Your task to perform on an android device: Open Google Maps and go to "Timeline" Image 0: 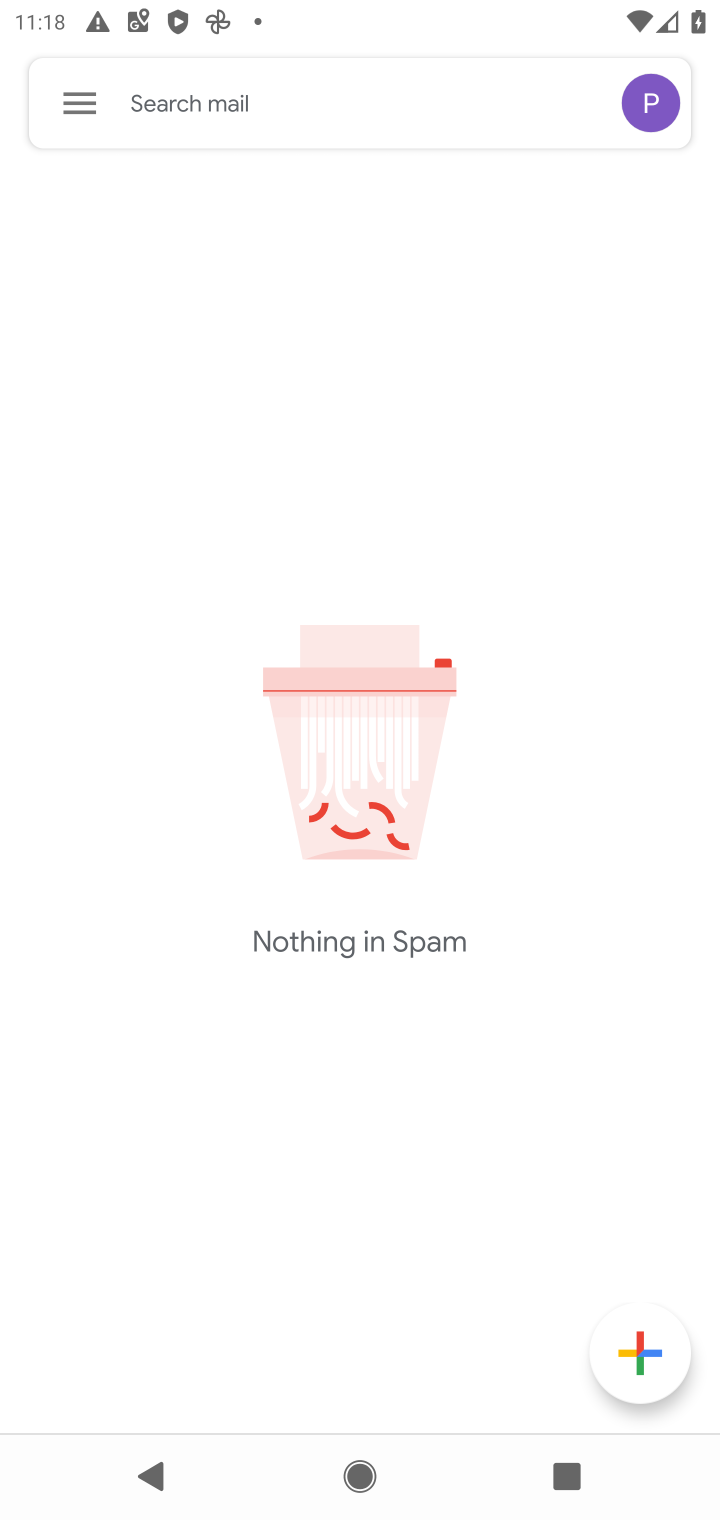
Step 0: press home button
Your task to perform on an android device: Open Google Maps and go to "Timeline" Image 1: 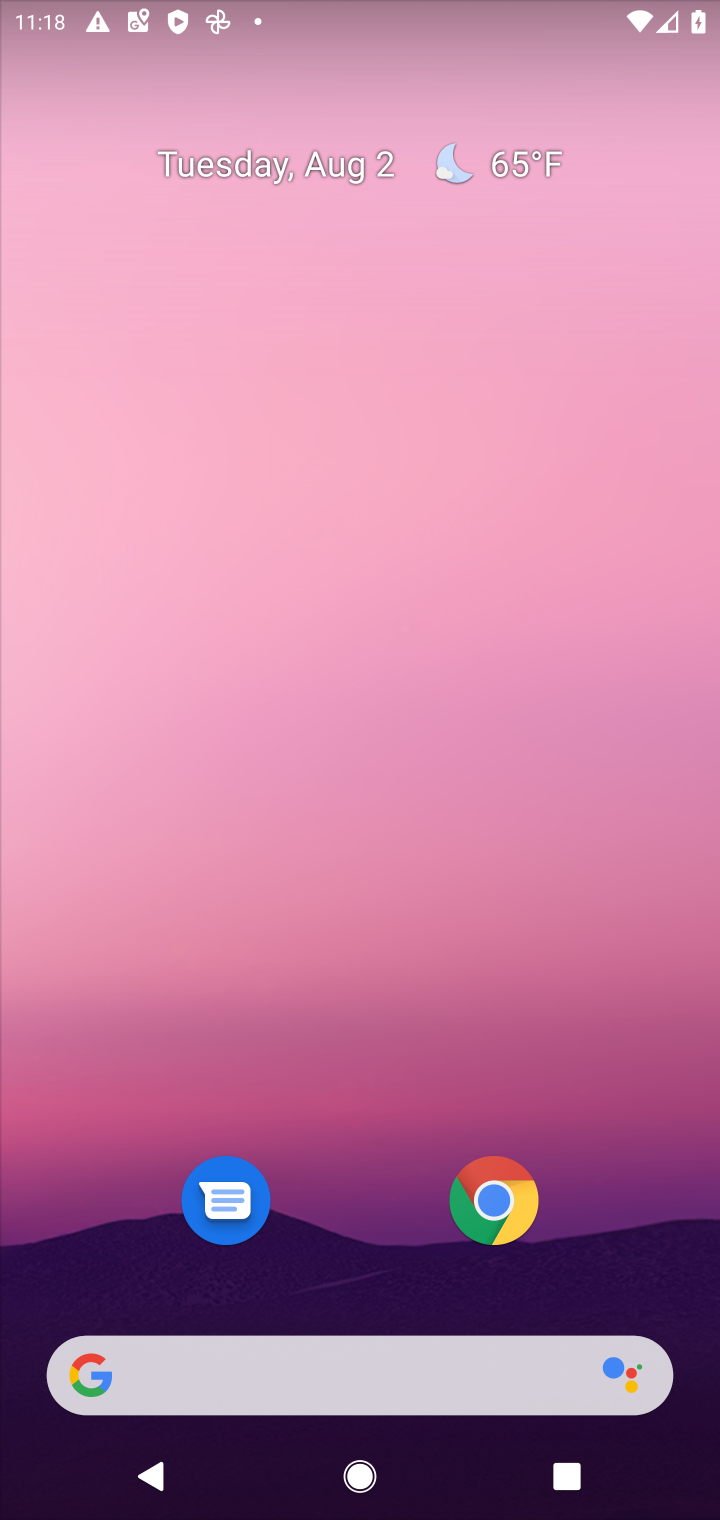
Step 1: drag from (675, 1264) to (564, 193)
Your task to perform on an android device: Open Google Maps and go to "Timeline" Image 2: 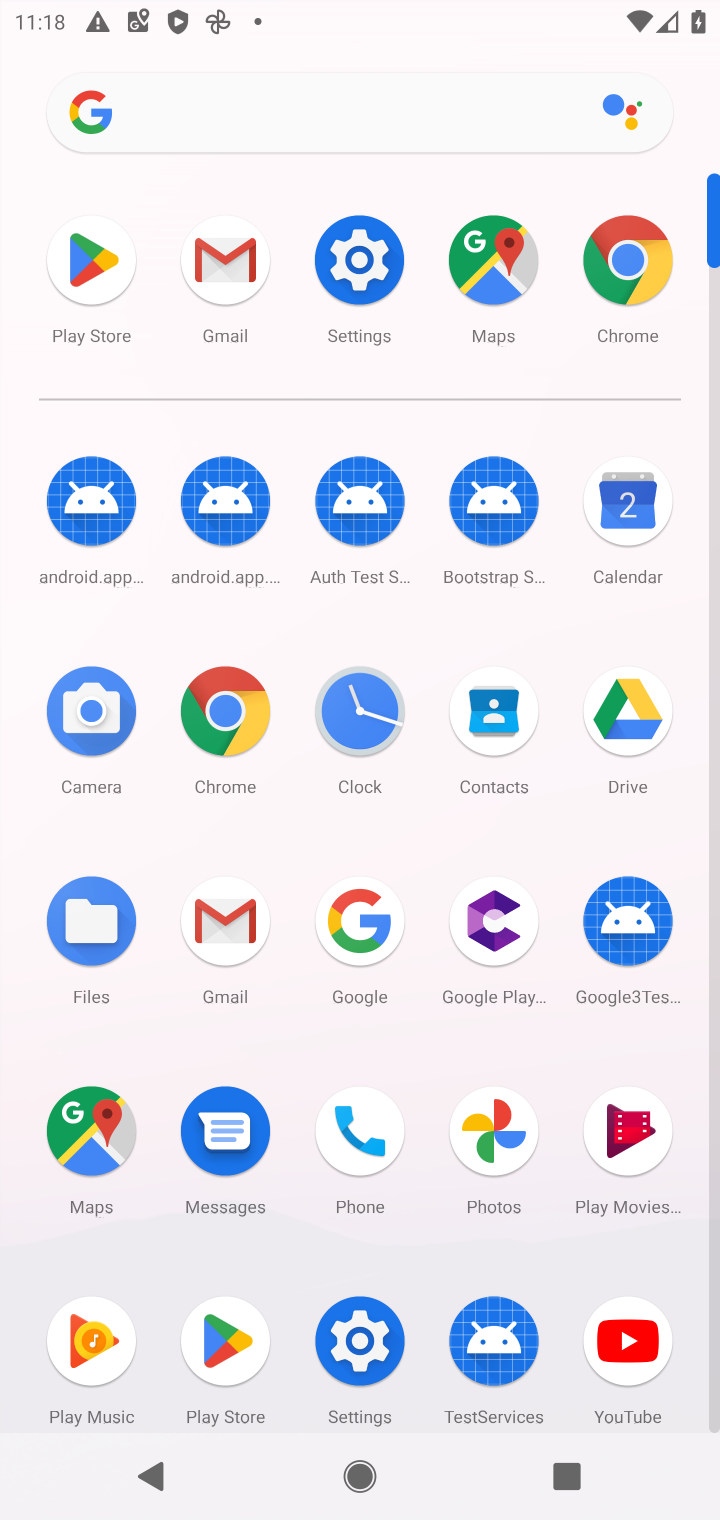
Step 2: click (94, 1118)
Your task to perform on an android device: Open Google Maps and go to "Timeline" Image 3: 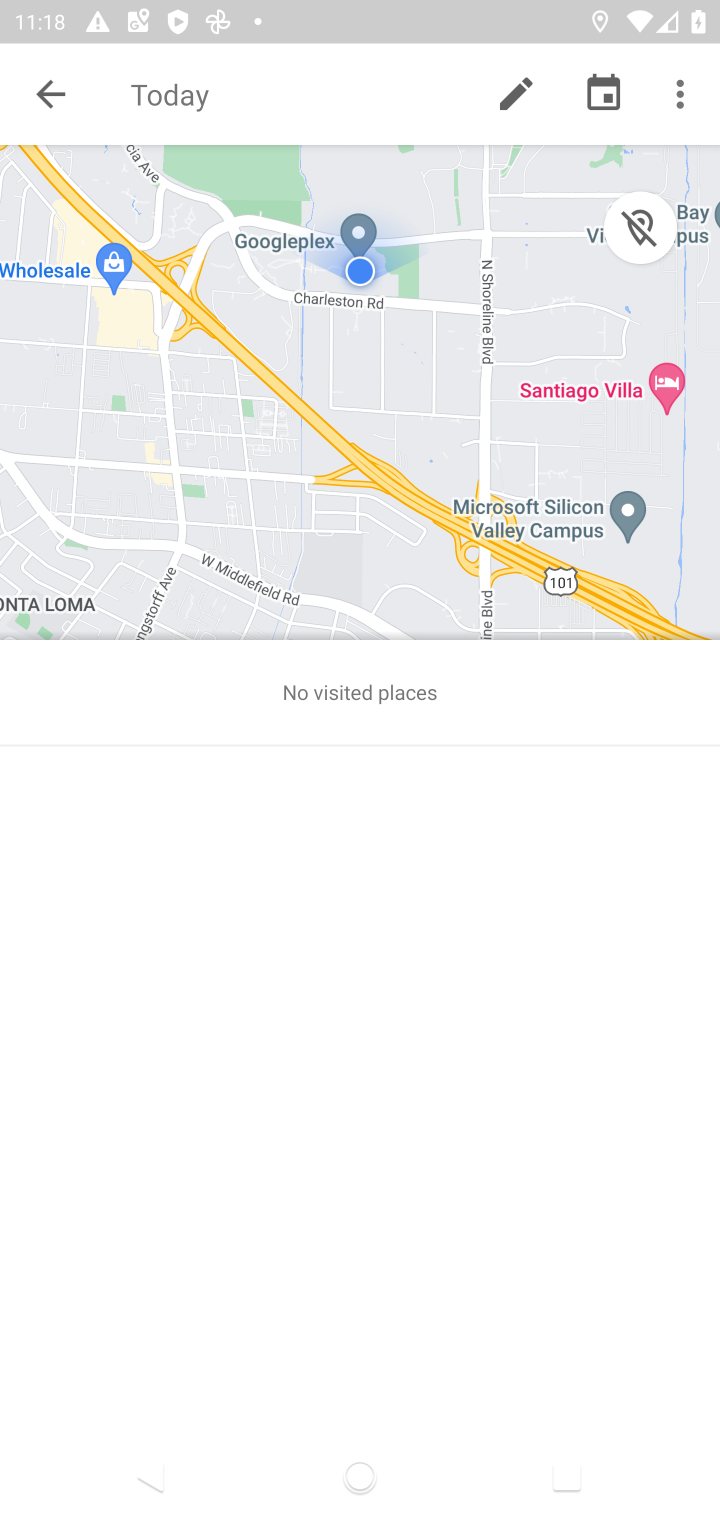
Step 3: press back button
Your task to perform on an android device: Open Google Maps and go to "Timeline" Image 4: 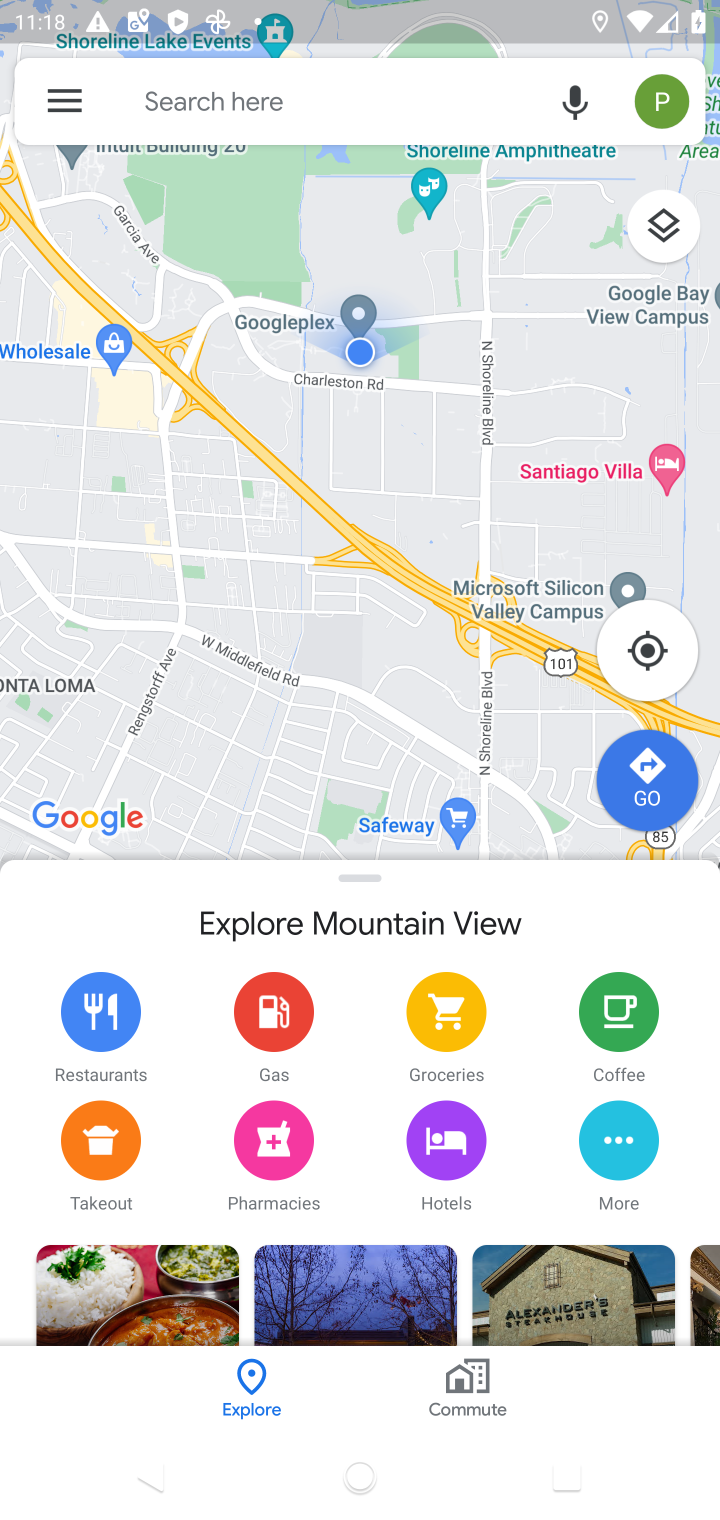
Step 4: click (56, 101)
Your task to perform on an android device: Open Google Maps and go to "Timeline" Image 5: 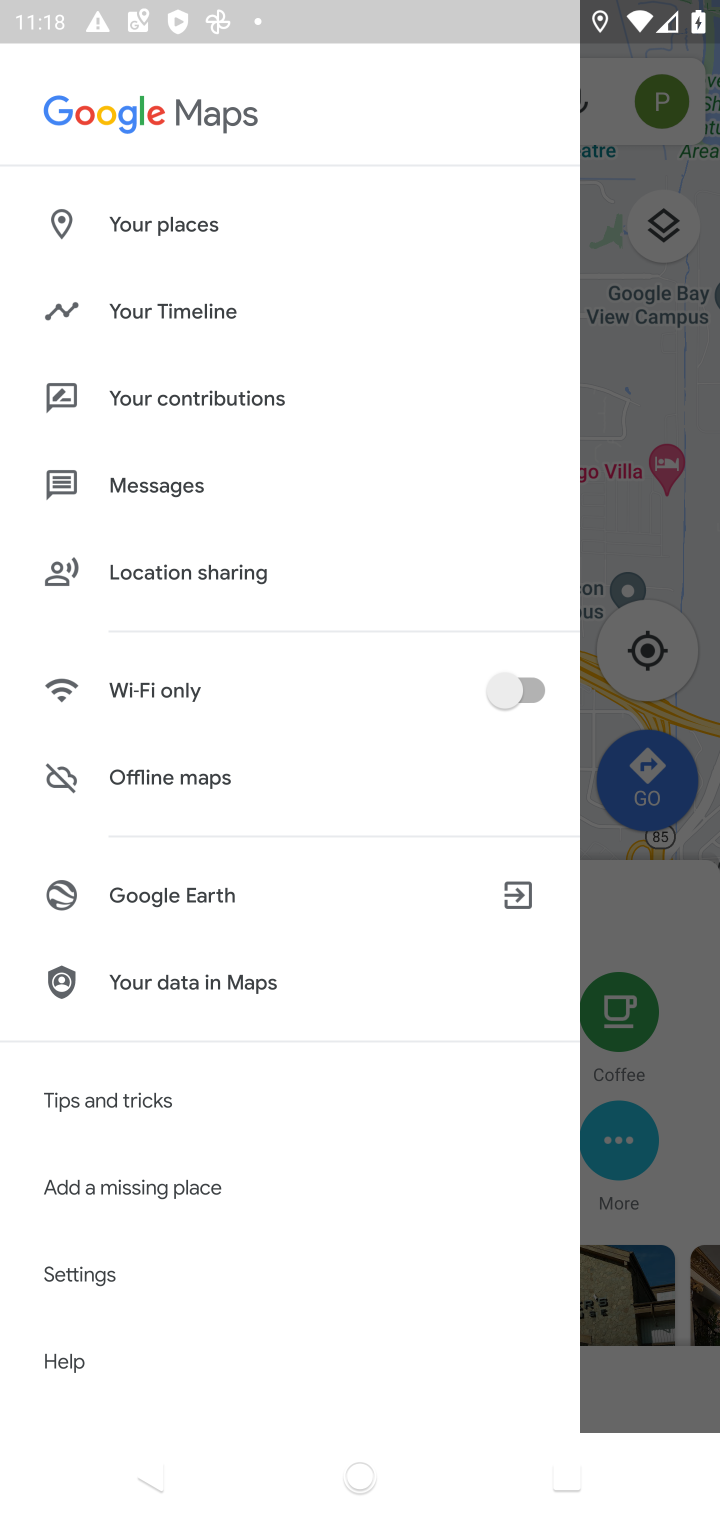
Step 5: click (191, 297)
Your task to perform on an android device: Open Google Maps and go to "Timeline" Image 6: 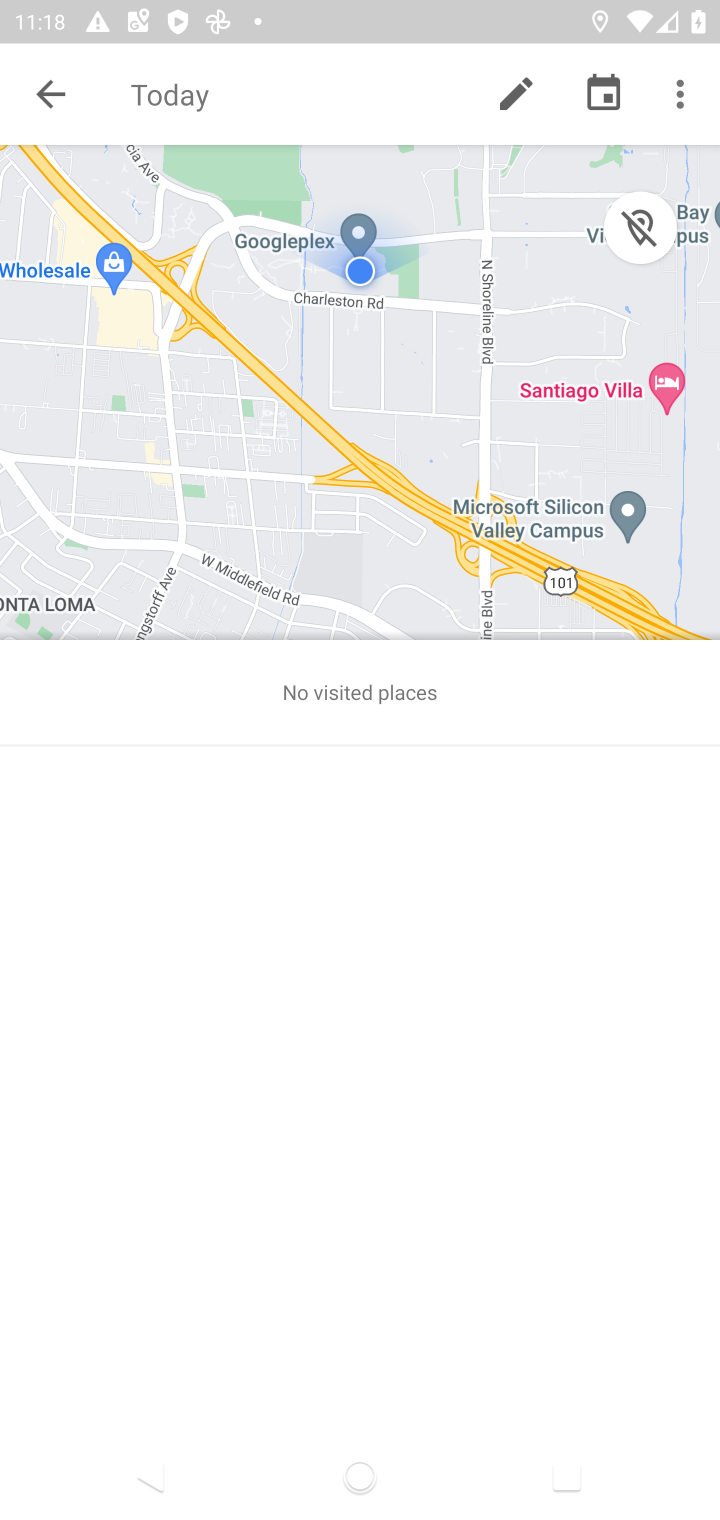
Step 6: task complete